Your task to perform on an android device: change the clock display to show seconds Image 0: 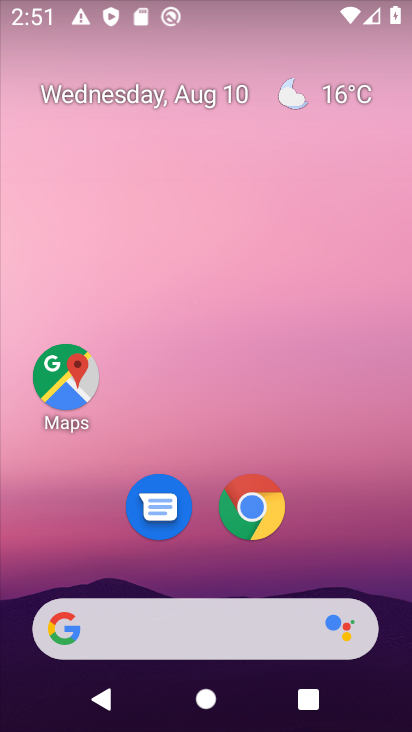
Step 0: click (322, 120)
Your task to perform on an android device: change the clock display to show seconds Image 1: 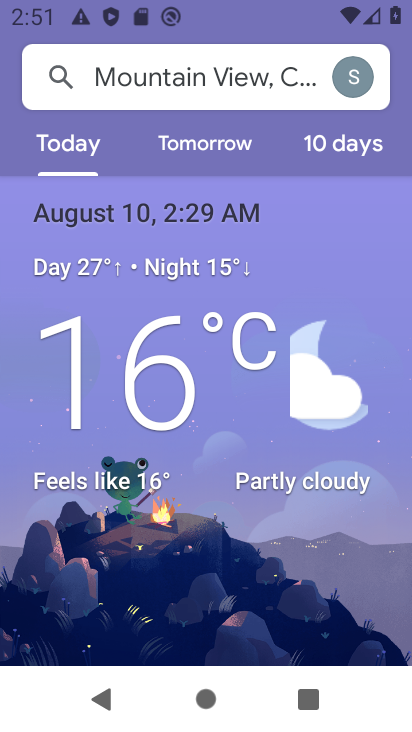
Step 1: press home button
Your task to perform on an android device: change the clock display to show seconds Image 2: 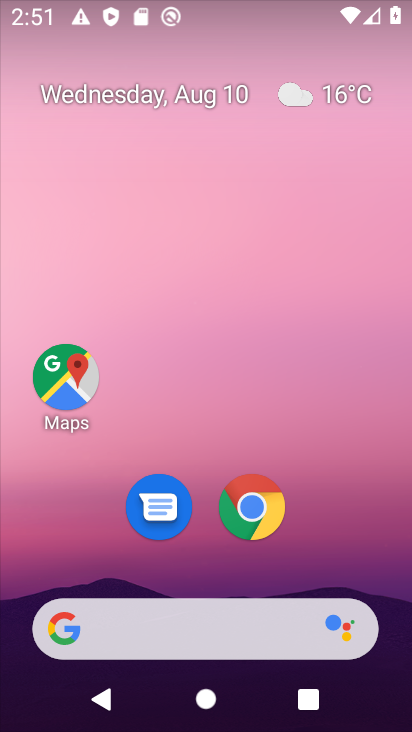
Step 2: drag from (245, 269) to (257, 80)
Your task to perform on an android device: change the clock display to show seconds Image 3: 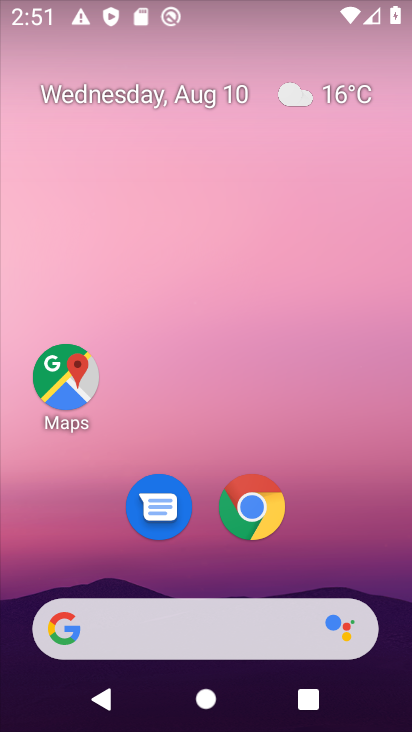
Step 3: drag from (361, 487) to (319, 53)
Your task to perform on an android device: change the clock display to show seconds Image 4: 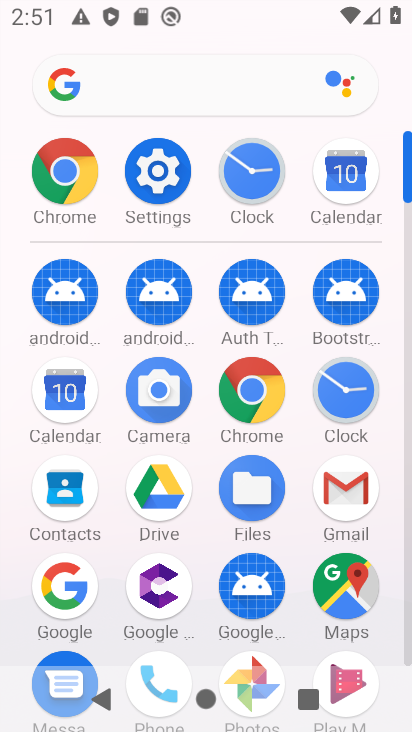
Step 4: click (349, 372)
Your task to perform on an android device: change the clock display to show seconds Image 5: 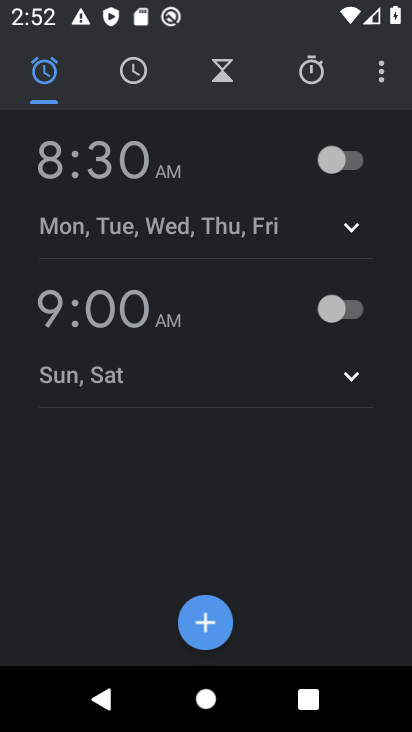
Step 5: click (387, 73)
Your task to perform on an android device: change the clock display to show seconds Image 6: 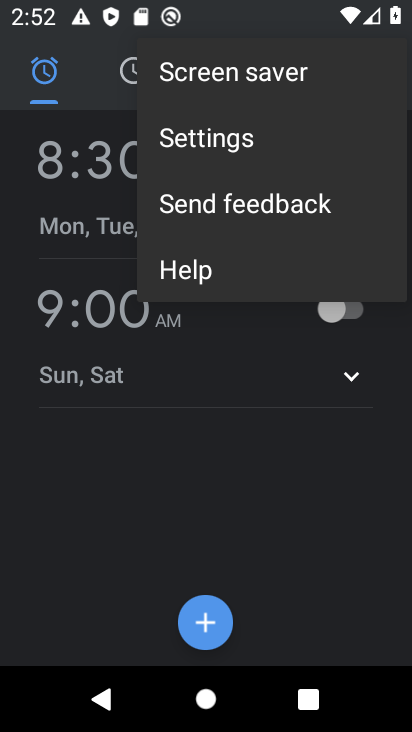
Step 6: click (204, 136)
Your task to perform on an android device: change the clock display to show seconds Image 7: 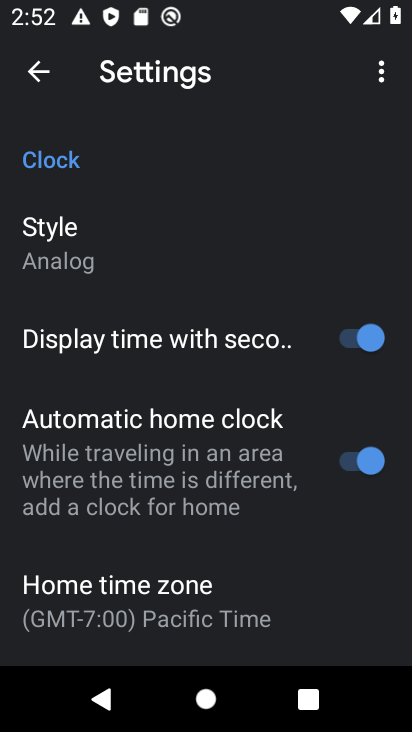
Step 7: task complete